Your task to perform on an android device: open wifi settings Image 0: 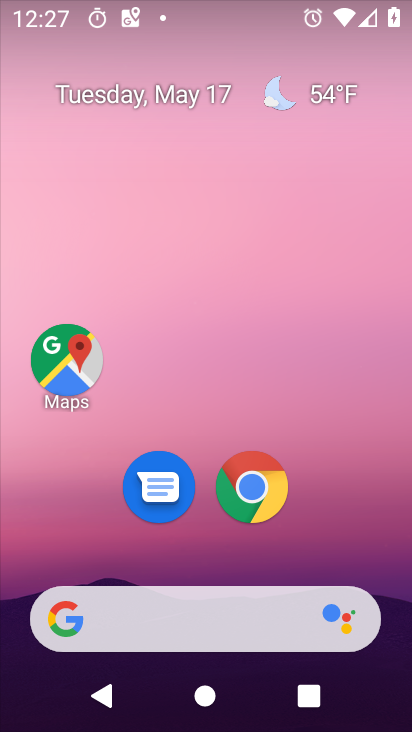
Step 0: drag from (83, 7) to (178, 540)
Your task to perform on an android device: open wifi settings Image 1: 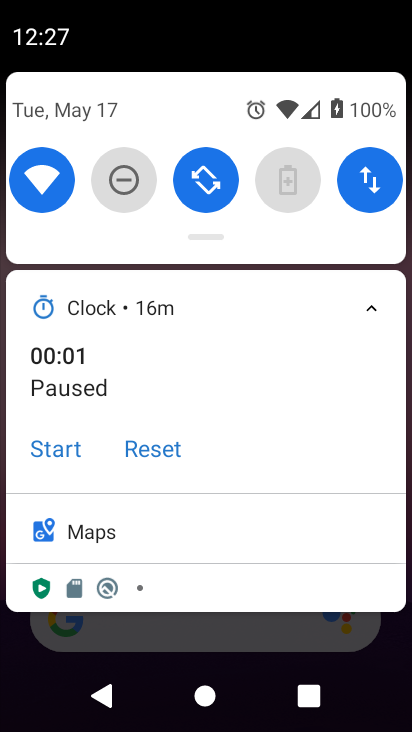
Step 1: click (39, 174)
Your task to perform on an android device: open wifi settings Image 2: 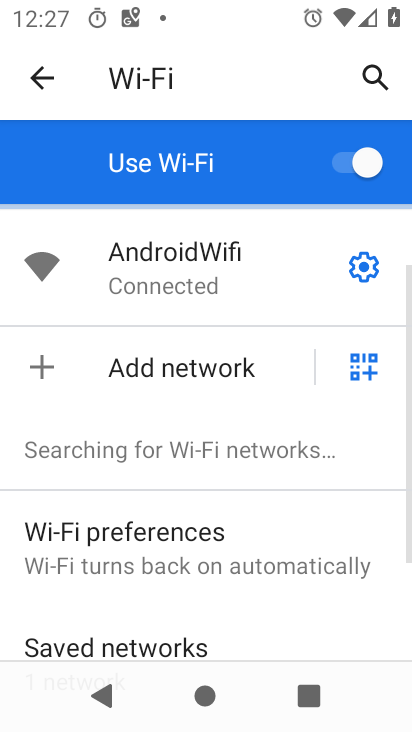
Step 2: task complete